Your task to perform on an android device: set the stopwatch Image 0: 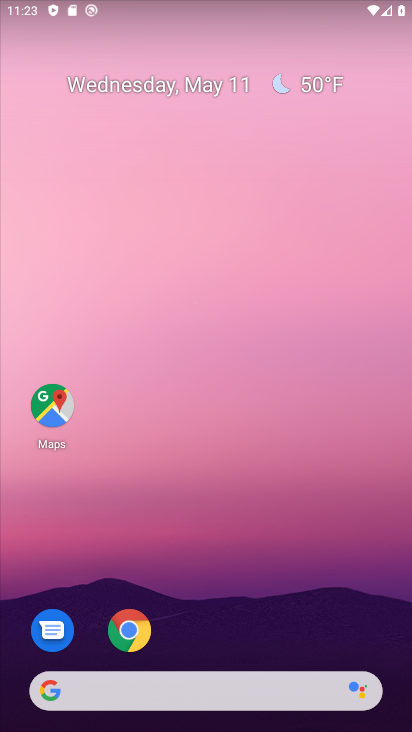
Step 0: drag from (194, 639) to (272, 228)
Your task to perform on an android device: set the stopwatch Image 1: 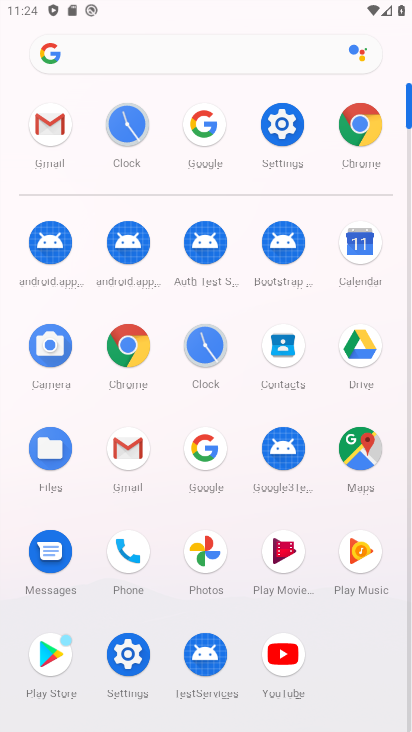
Step 1: click (196, 359)
Your task to perform on an android device: set the stopwatch Image 2: 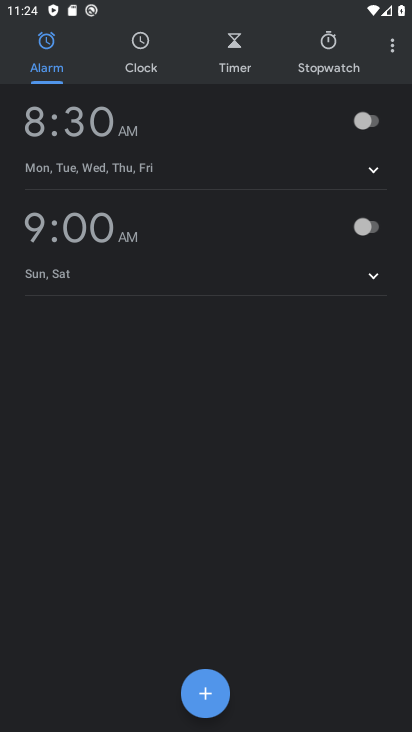
Step 2: click (329, 66)
Your task to perform on an android device: set the stopwatch Image 3: 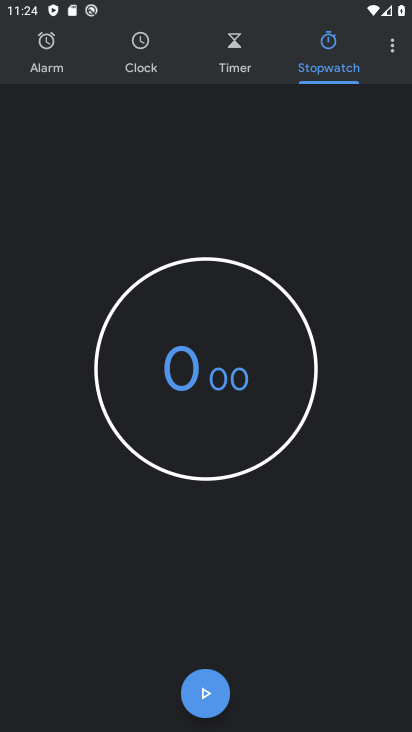
Step 3: click (228, 370)
Your task to perform on an android device: set the stopwatch Image 4: 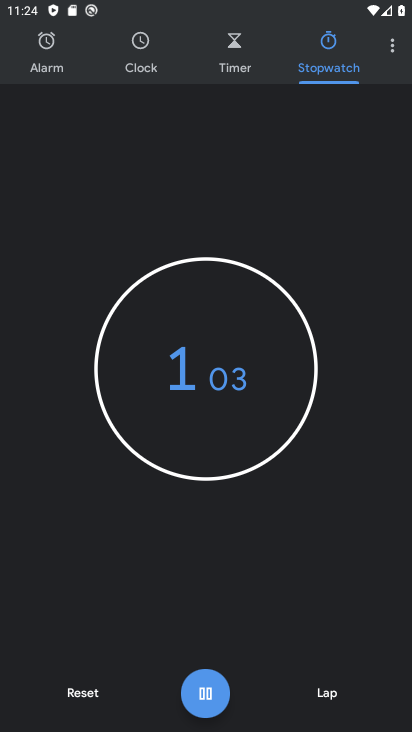
Step 4: click (218, 376)
Your task to perform on an android device: set the stopwatch Image 5: 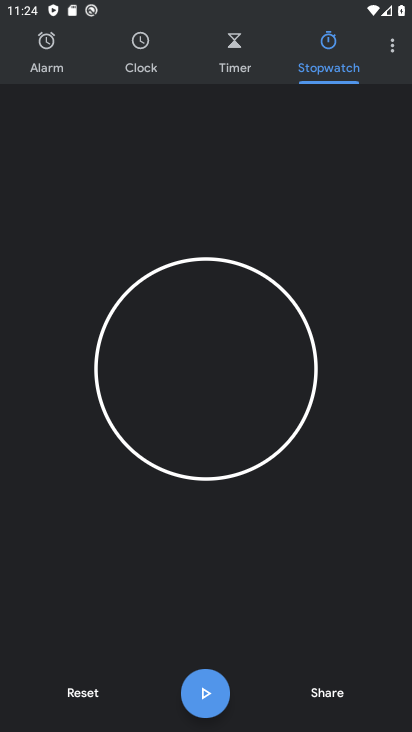
Step 5: task complete